Your task to perform on an android device: turn pop-ups off in chrome Image 0: 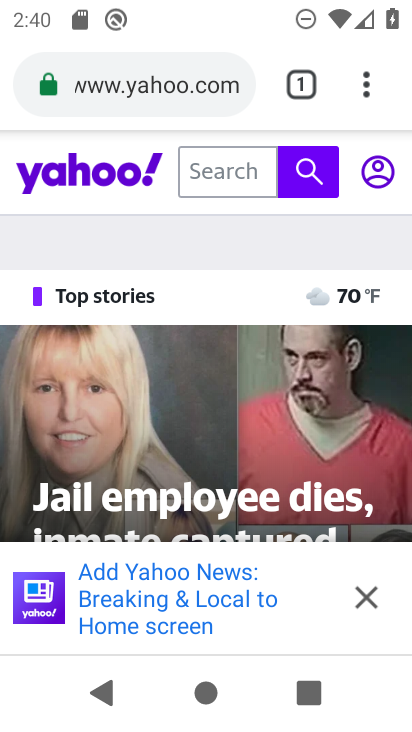
Step 0: click (356, 92)
Your task to perform on an android device: turn pop-ups off in chrome Image 1: 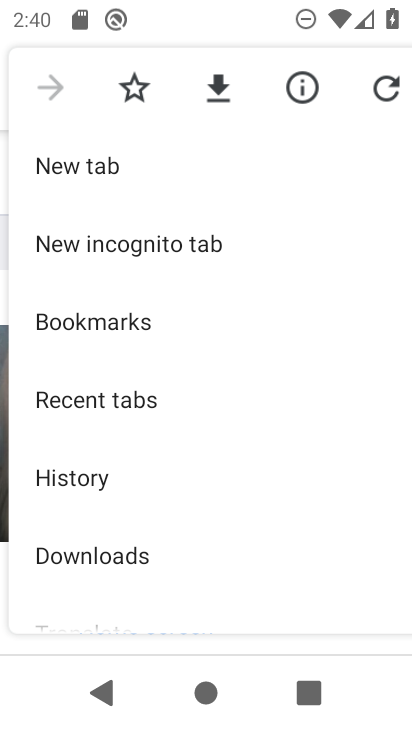
Step 1: drag from (121, 544) to (124, 275)
Your task to perform on an android device: turn pop-ups off in chrome Image 2: 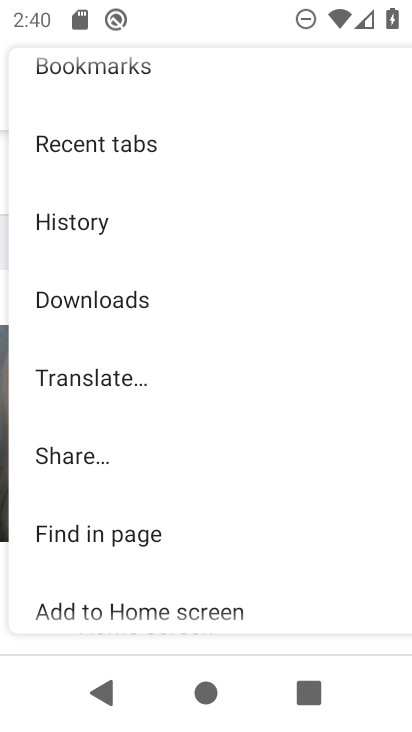
Step 2: drag from (118, 540) to (126, 267)
Your task to perform on an android device: turn pop-ups off in chrome Image 3: 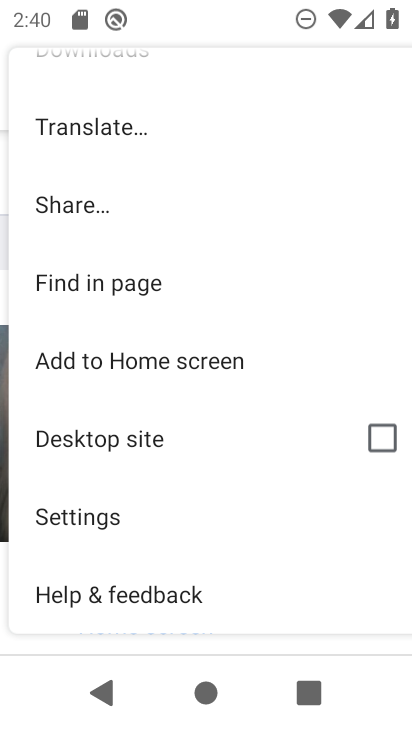
Step 3: click (137, 517)
Your task to perform on an android device: turn pop-ups off in chrome Image 4: 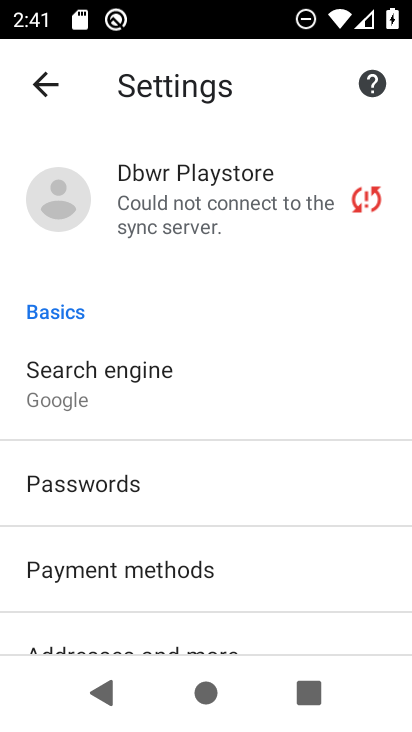
Step 4: drag from (147, 580) to (115, 358)
Your task to perform on an android device: turn pop-ups off in chrome Image 5: 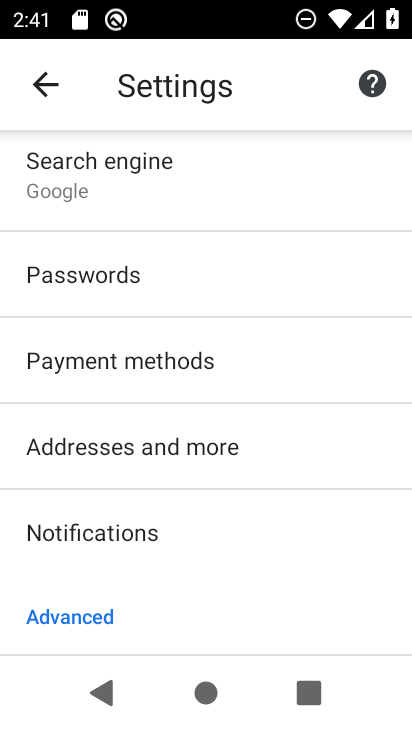
Step 5: drag from (155, 570) to (135, 314)
Your task to perform on an android device: turn pop-ups off in chrome Image 6: 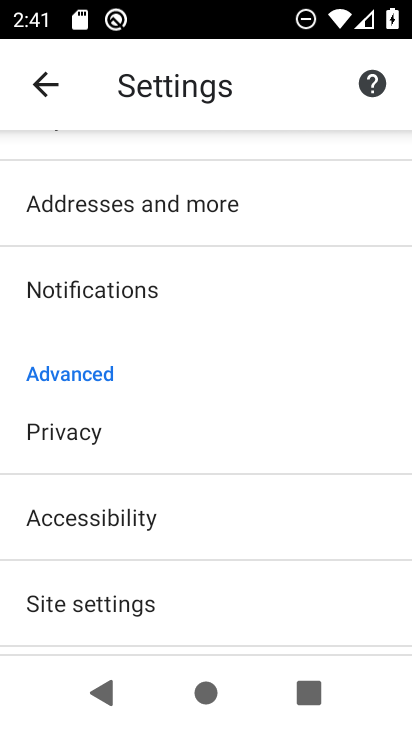
Step 6: drag from (162, 546) to (110, 374)
Your task to perform on an android device: turn pop-ups off in chrome Image 7: 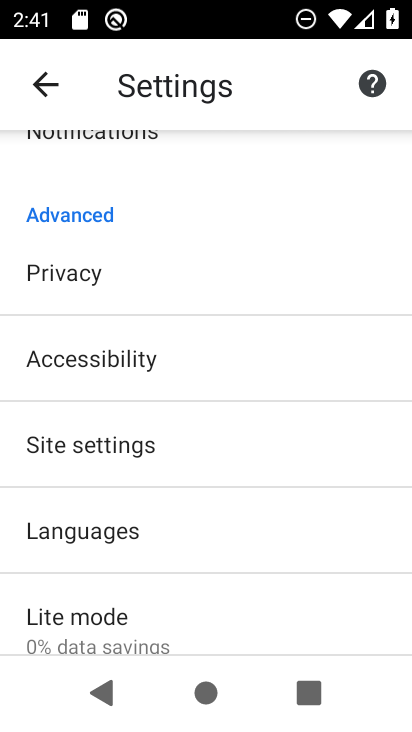
Step 7: click (147, 449)
Your task to perform on an android device: turn pop-ups off in chrome Image 8: 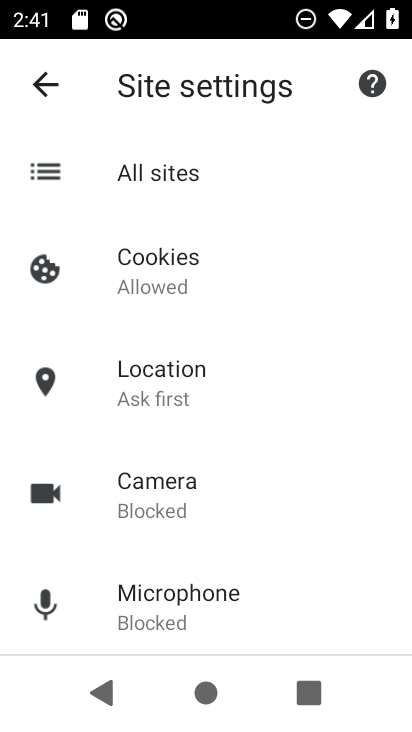
Step 8: drag from (174, 562) to (145, 323)
Your task to perform on an android device: turn pop-ups off in chrome Image 9: 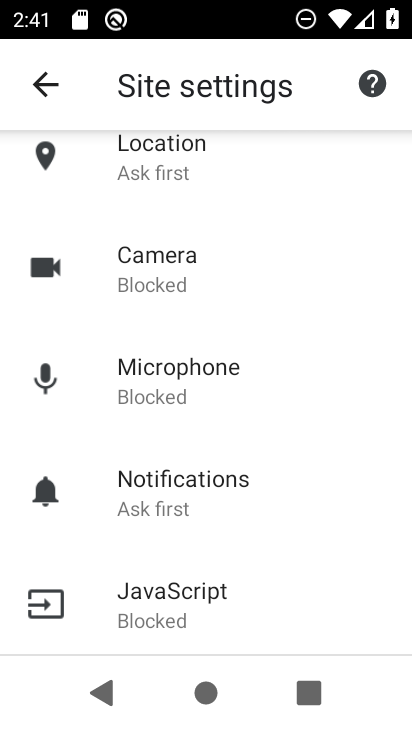
Step 9: drag from (169, 601) to (144, 392)
Your task to perform on an android device: turn pop-ups off in chrome Image 10: 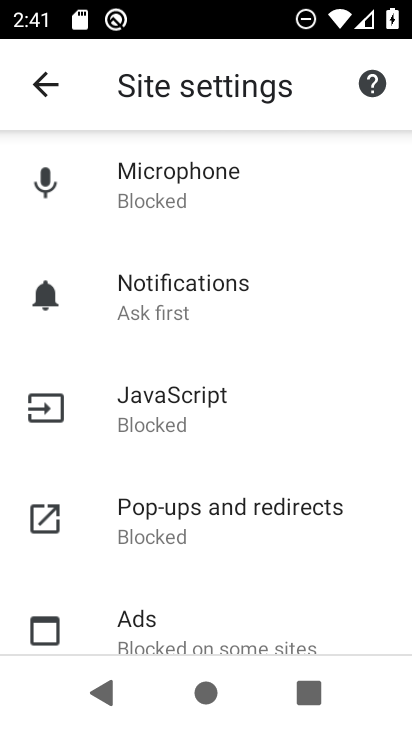
Step 10: click (187, 536)
Your task to perform on an android device: turn pop-ups off in chrome Image 11: 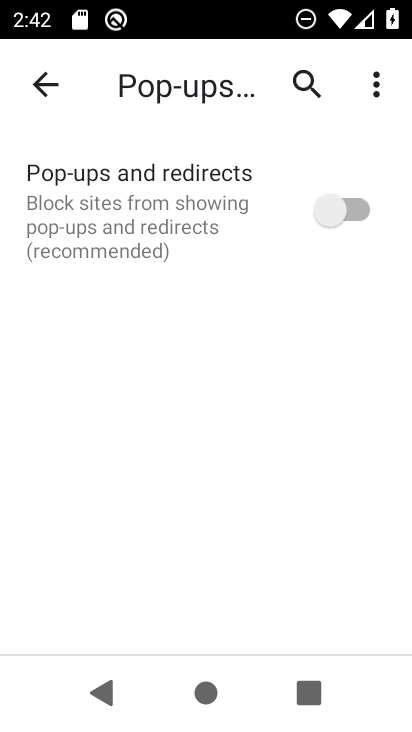
Step 11: task complete